Your task to perform on an android device: turn on notifications settings in the gmail app Image 0: 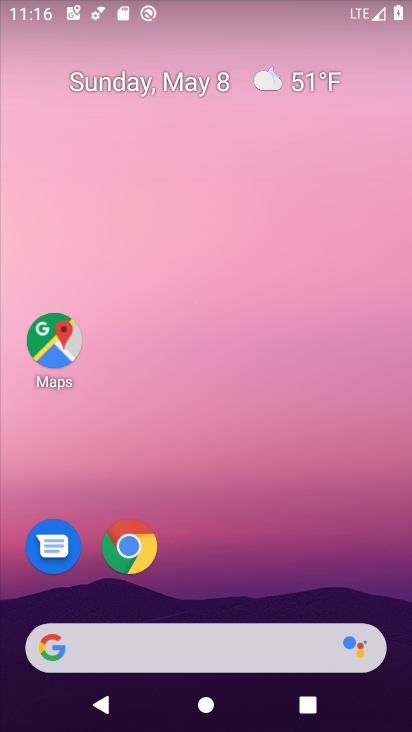
Step 0: drag from (390, 613) to (346, 48)
Your task to perform on an android device: turn on notifications settings in the gmail app Image 1: 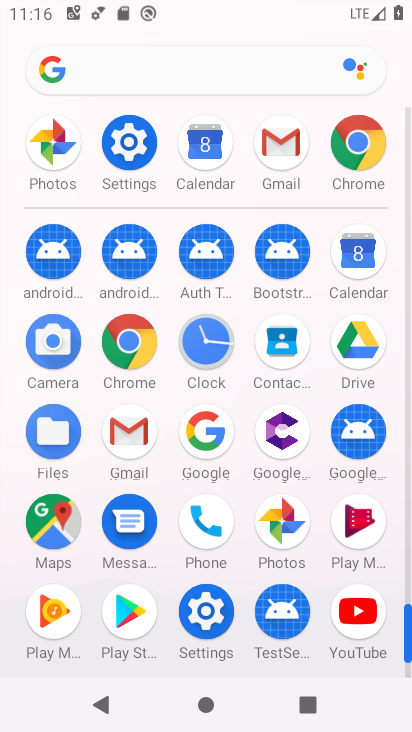
Step 1: click (125, 430)
Your task to perform on an android device: turn on notifications settings in the gmail app Image 2: 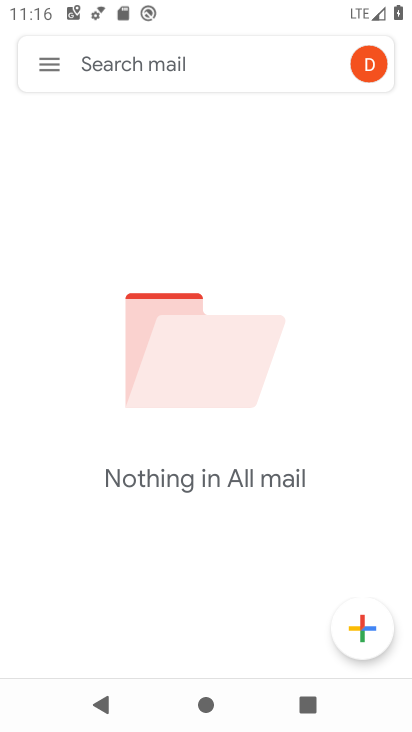
Step 2: click (45, 59)
Your task to perform on an android device: turn on notifications settings in the gmail app Image 3: 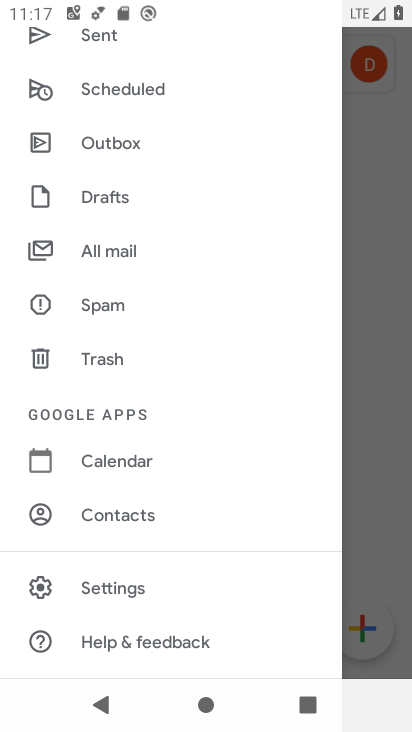
Step 3: click (114, 589)
Your task to perform on an android device: turn on notifications settings in the gmail app Image 4: 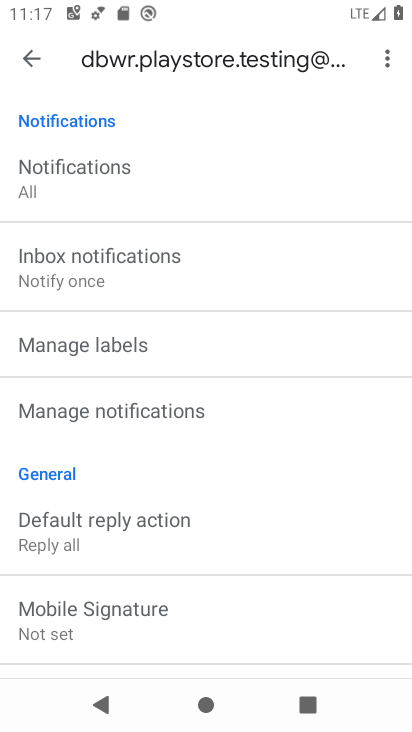
Step 4: click (101, 421)
Your task to perform on an android device: turn on notifications settings in the gmail app Image 5: 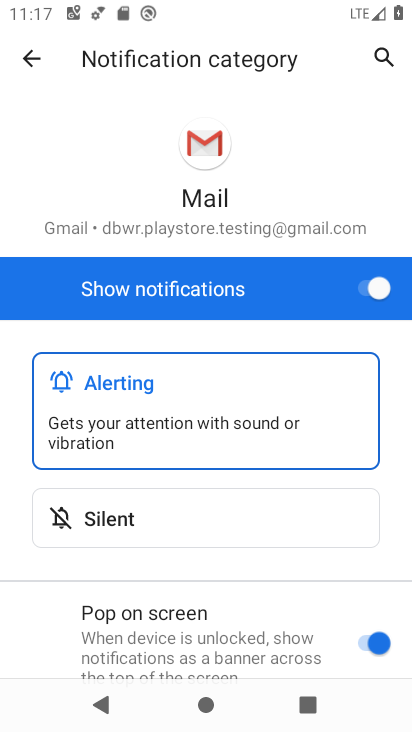
Step 5: task complete